Your task to perform on an android device: delete browsing data in the chrome app Image 0: 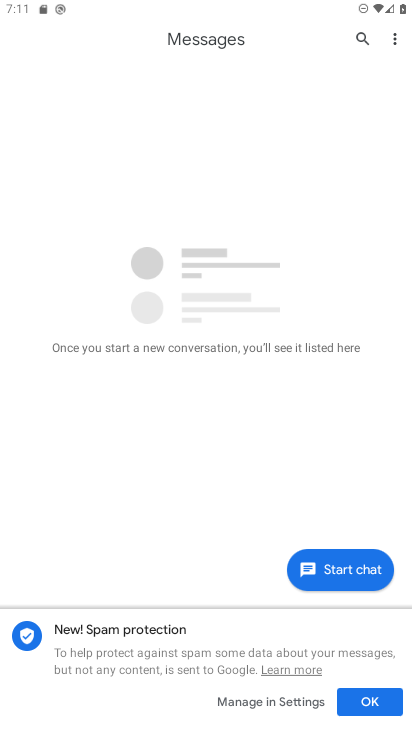
Step 0: press home button
Your task to perform on an android device: delete browsing data in the chrome app Image 1: 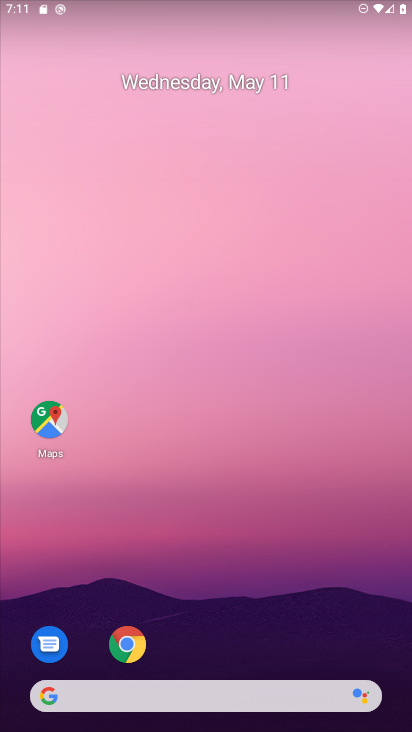
Step 1: click (125, 645)
Your task to perform on an android device: delete browsing data in the chrome app Image 2: 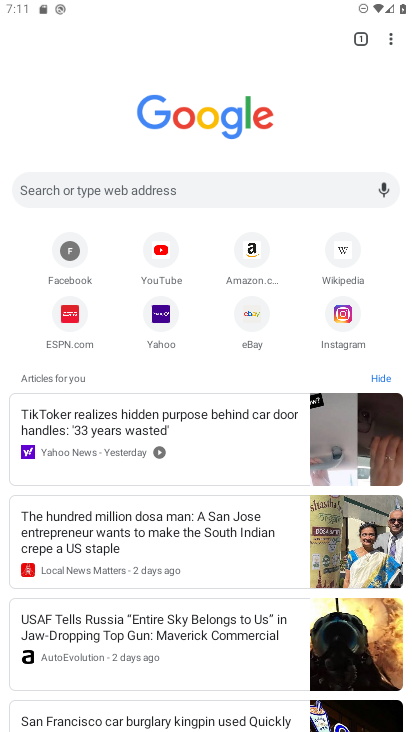
Step 2: click (392, 37)
Your task to perform on an android device: delete browsing data in the chrome app Image 3: 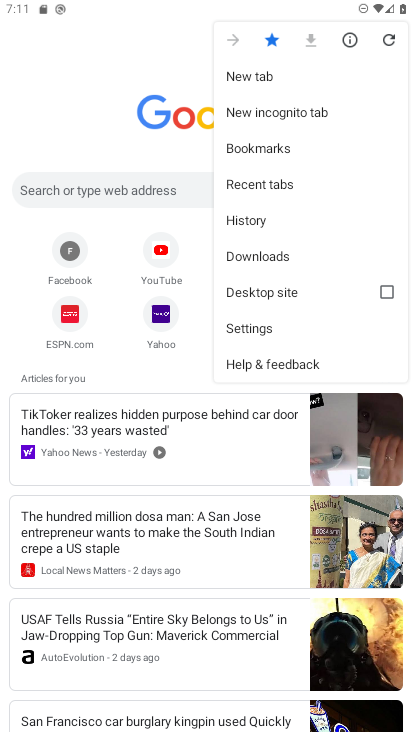
Step 3: click (259, 327)
Your task to perform on an android device: delete browsing data in the chrome app Image 4: 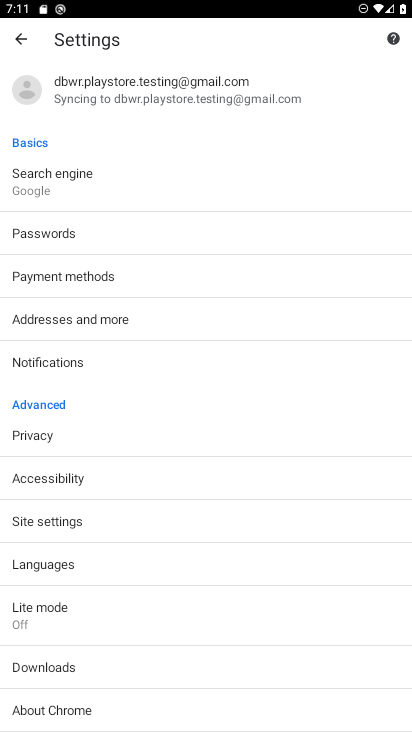
Step 4: click (23, 35)
Your task to perform on an android device: delete browsing data in the chrome app Image 5: 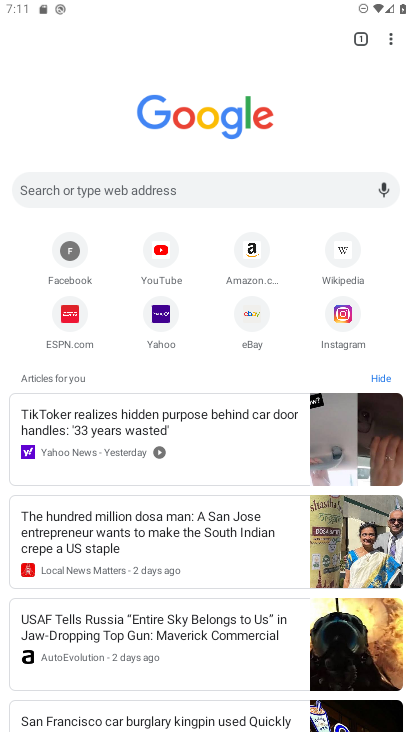
Step 5: click (391, 32)
Your task to perform on an android device: delete browsing data in the chrome app Image 6: 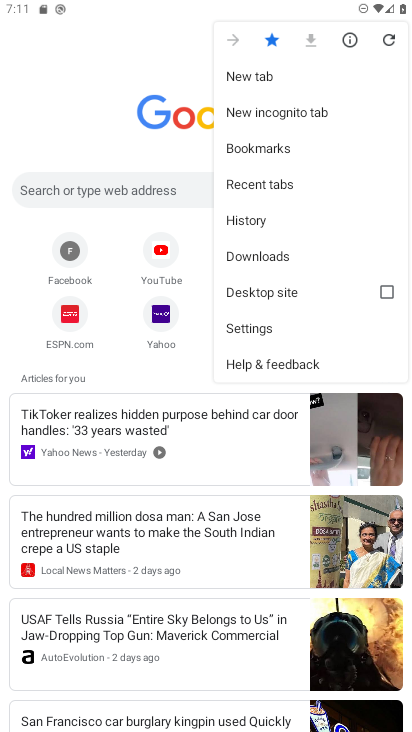
Step 6: click (248, 219)
Your task to perform on an android device: delete browsing data in the chrome app Image 7: 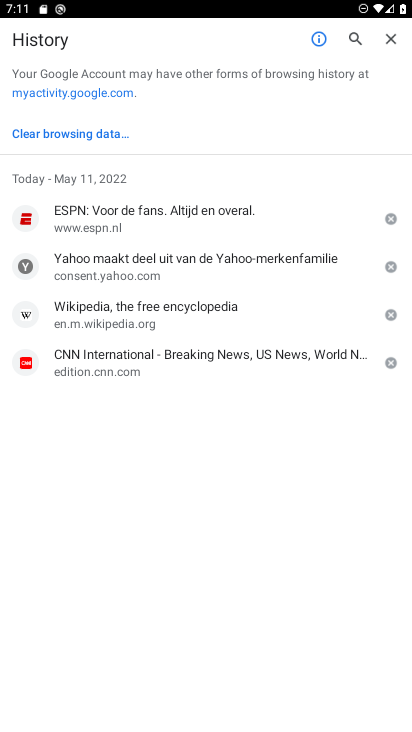
Step 7: click (74, 136)
Your task to perform on an android device: delete browsing data in the chrome app Image 8: 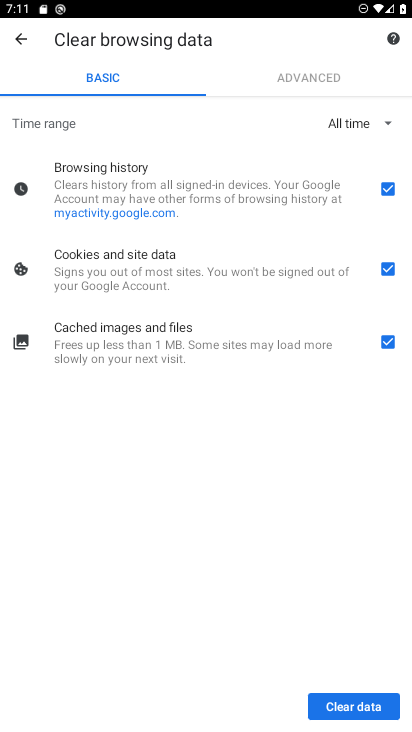
Step 8: click (367, 713)
Your task to perform on an android device: delete browsing data in the chrome app Image 9: 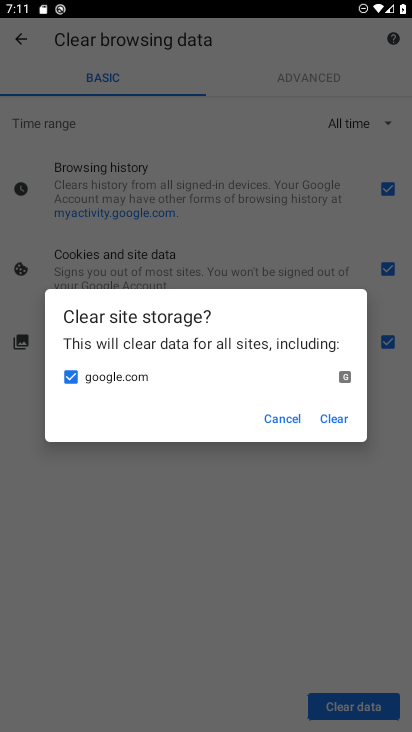
Step 9: click (337, 414)
Your task to perform on an android device: delete browsing data in the chrome app Image 10: 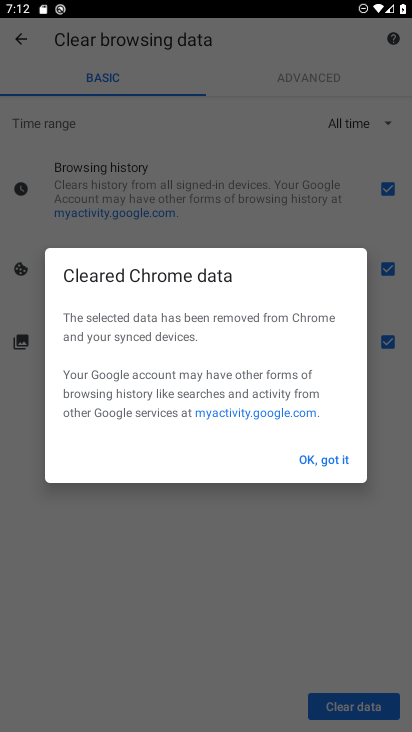
Step 10: click (321, 451)
Your task to perform on an android device: delete browsing data in the chrome app Image 11: 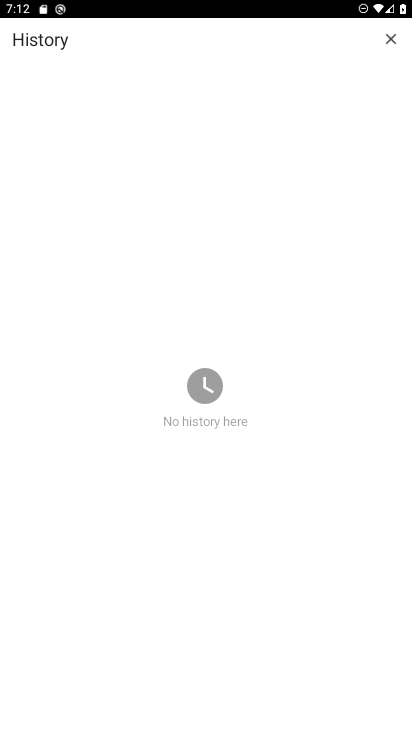
Step 11: task complete